Your task to perform on an android device: turn off location Image 0: 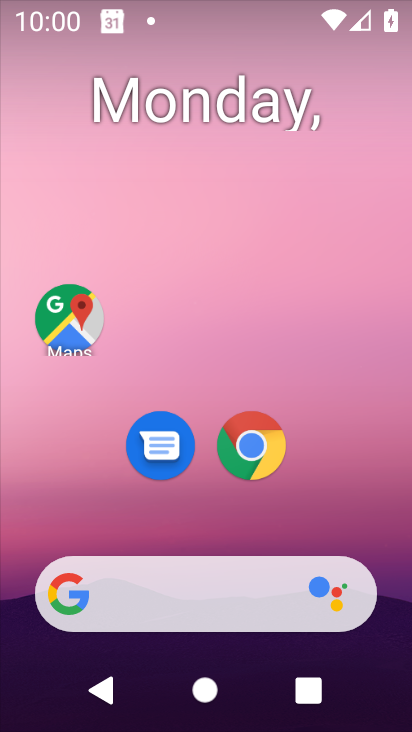
Step 0: drag from (263, 239) to (278, 11)
Your task to perform on an android device: turn off location Image 1: 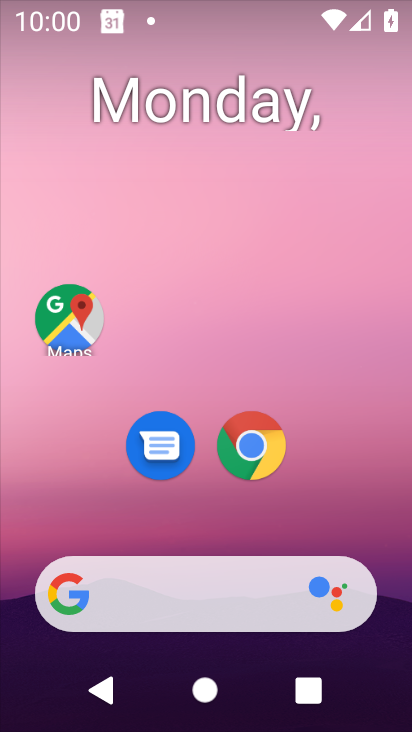
Step 1: drag from (316, 552) to (205, 37)
Your task to perform on an android device: turn off location Image 2: 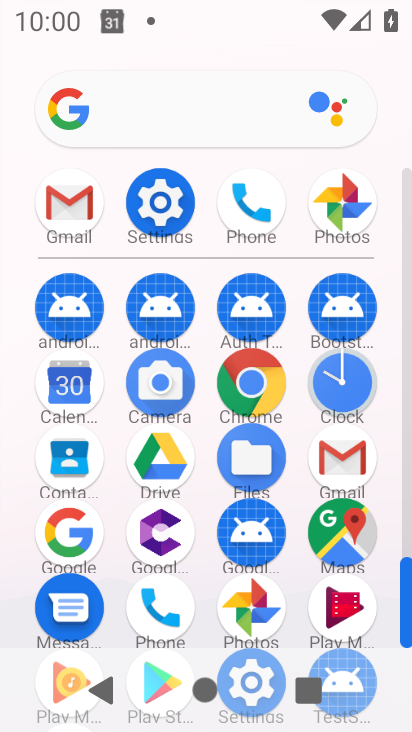
Step 2: click (162, 200)
Your task to perform on an android device: turn off location Image 3: 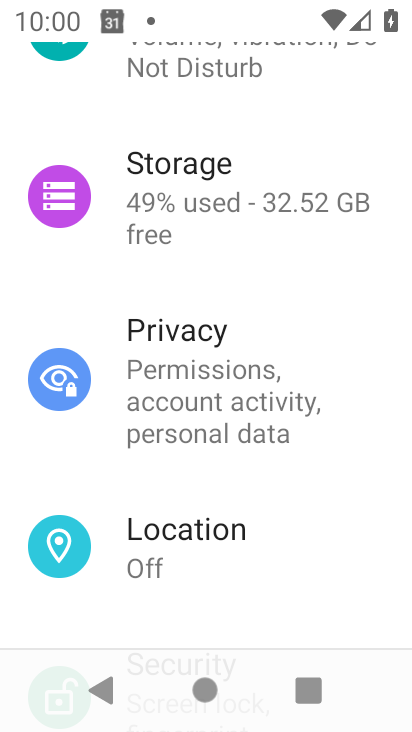
Step 3: click (173, 540)
Your task to perform on an android device: turn off location Image 4: 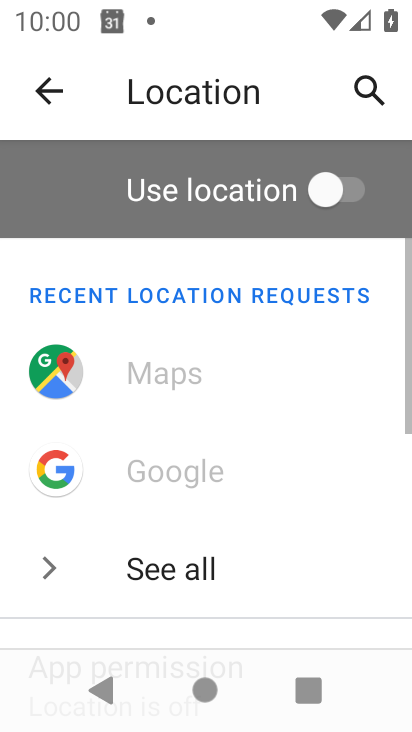
Step 4: task complete